Your task to perform on an android device: Open calendar and show me the second week of next month Image 0: 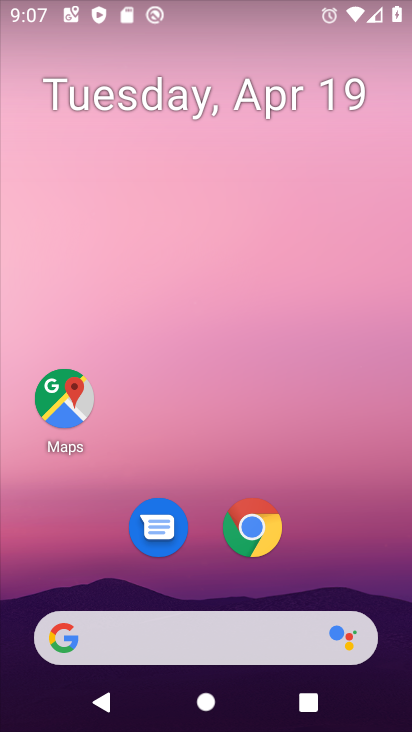
Step 0: drag from (322, 656) to (342, 142)
Your task to perform on an android device: Open calendar and show me the second week of next month Image 1: 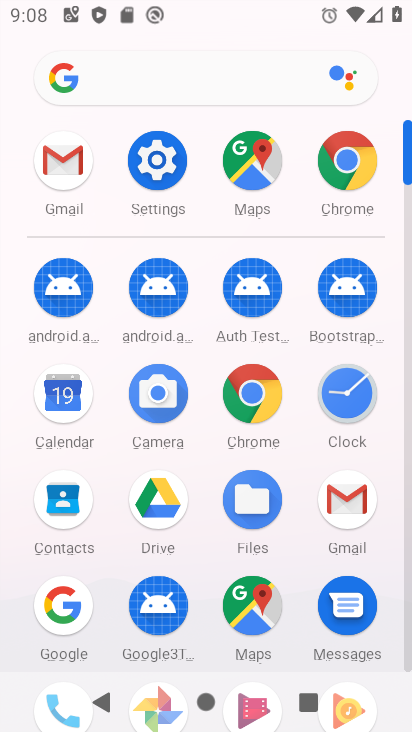
Step 1: click (61, 390)
Your task to perform on an android device: Open calendar and show me the second week of next month Image 2: 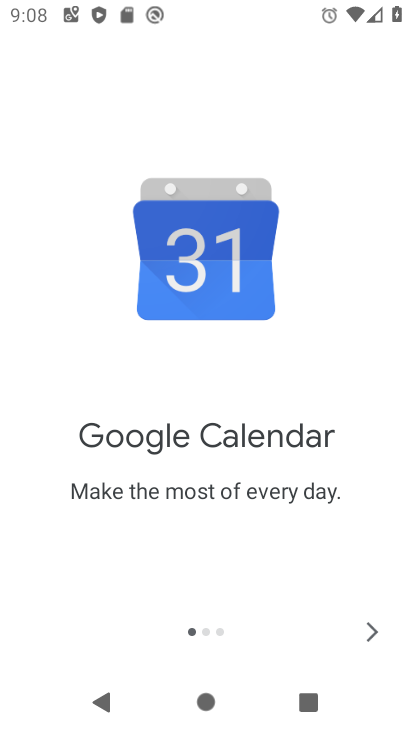
Step 2: click (366, 633)
Your task to perform on an android device: Open calendar and show me the second week of next month Image 3: 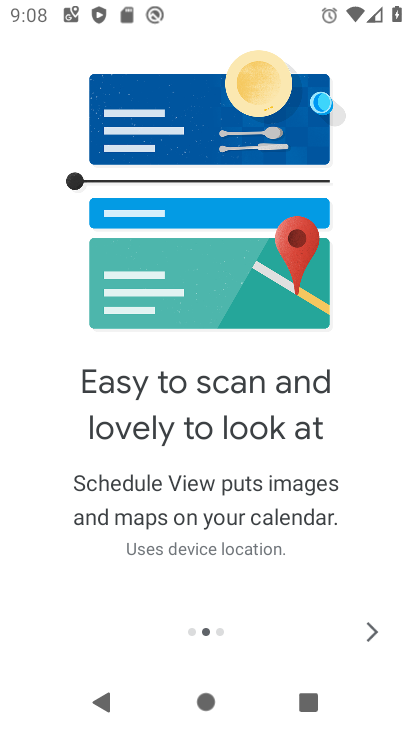
Step 3: click (366, 633)
Your task to perform on an android device: Open calendar and show me the second week of next month Image 4: 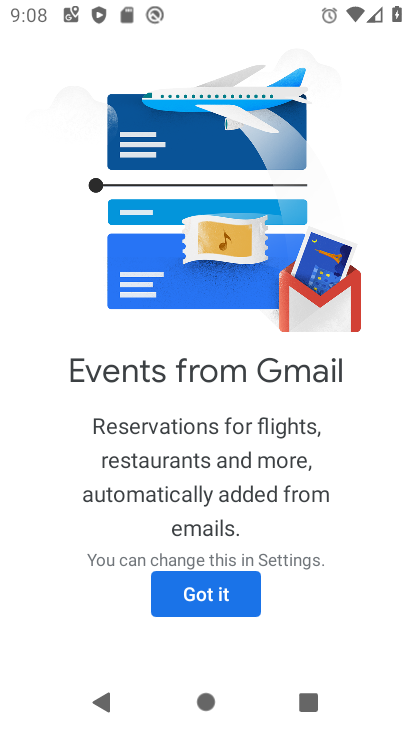
Step 4: click (219, 591)
Your task to perform on an android device: Open calendar and show me the second week of next month Image 5: 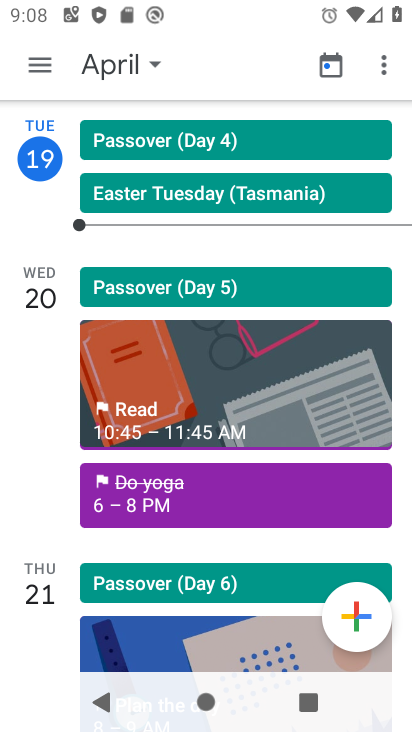
Step 5: click (36, 64)
Your task to perform on an android device: Open calendar and show me the second week of next month Image 6: 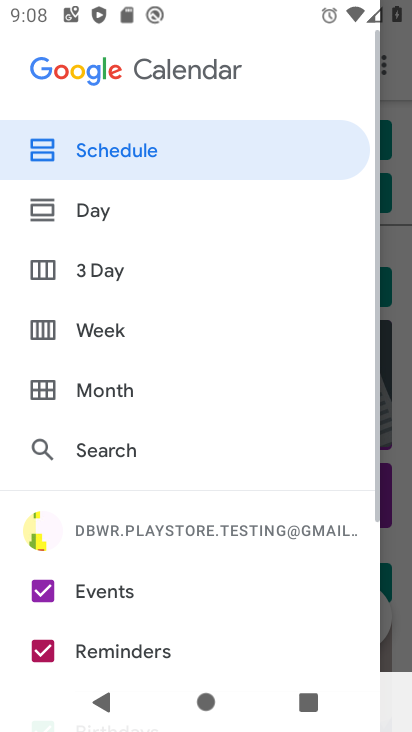
Step 6: click (110, 383)
Your task to perform on an android device: Open calendar and show me the second week of next month Image 7: 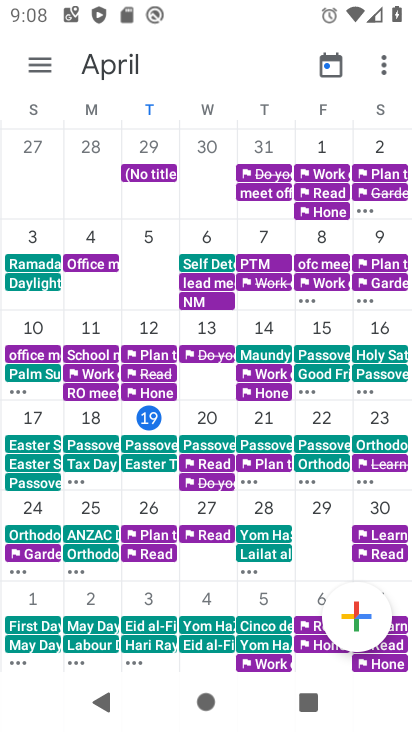
Step 7: task complete